Your task to perform on an android device: toggle sleep mode Image 0: 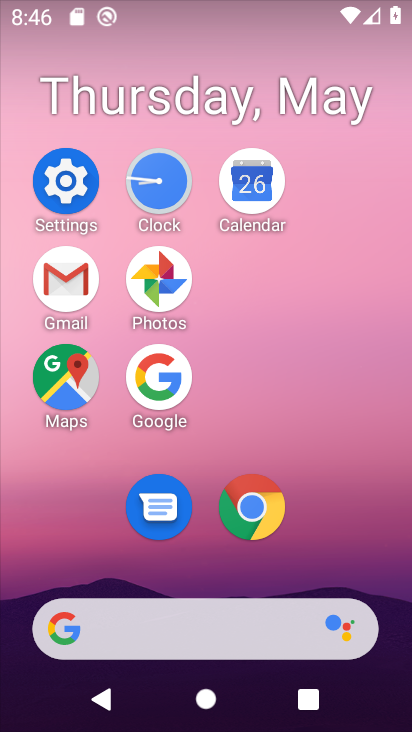
Step 0: click (72, 192)
Your task to perform on an android device: toggle sleep mode Image 1: 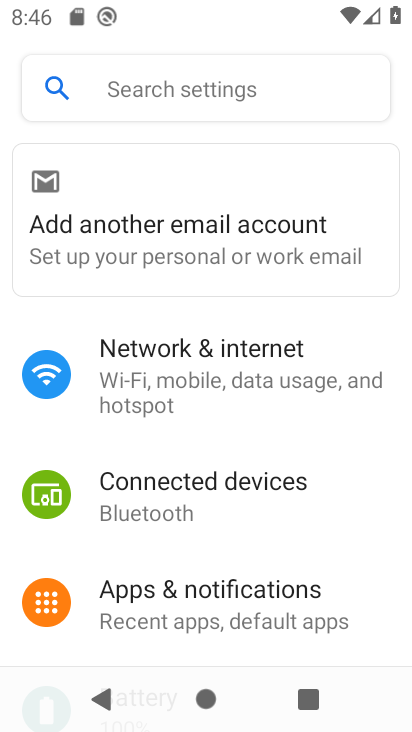
Step 1: drag from (180, 609) to (221, 259)
Your task to perform on an android device: toggle sleep mode Image 2: 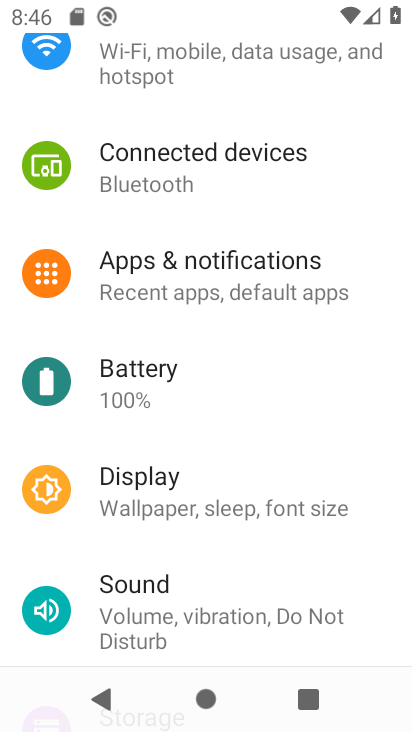
Step 2: click (216, 499)
Your task to perform on an android device: toggle sleep mode Image 3: 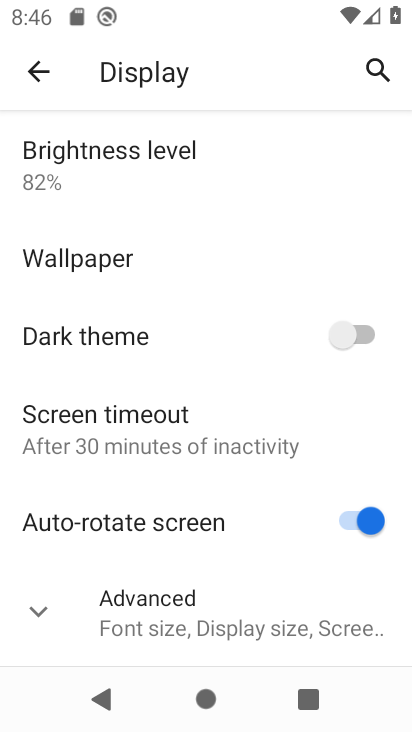
Step 3: click (211, 429)
Your task to perform on an android device: toggle sleep mode Image 4: 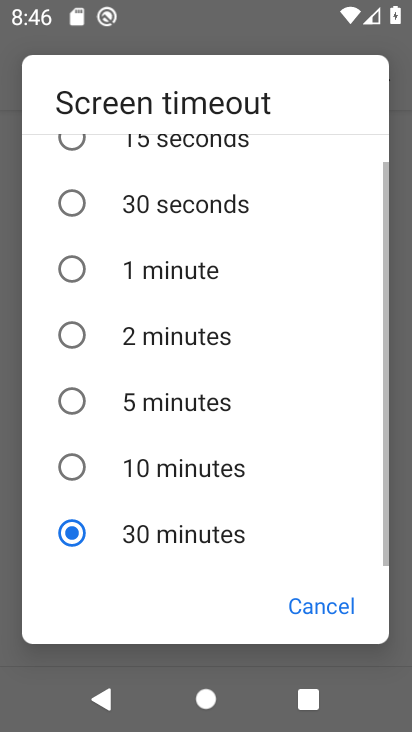
Step 4: click (88, 257)
Your task to perform on an android device: toggle sleep mode Image 5: 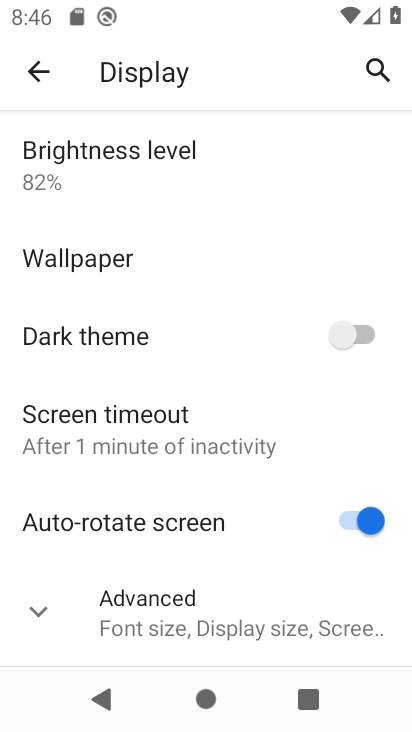
Step 5: task complete